Your task to perform on an android device: Search for sushi restaurants on Maps Image 0: 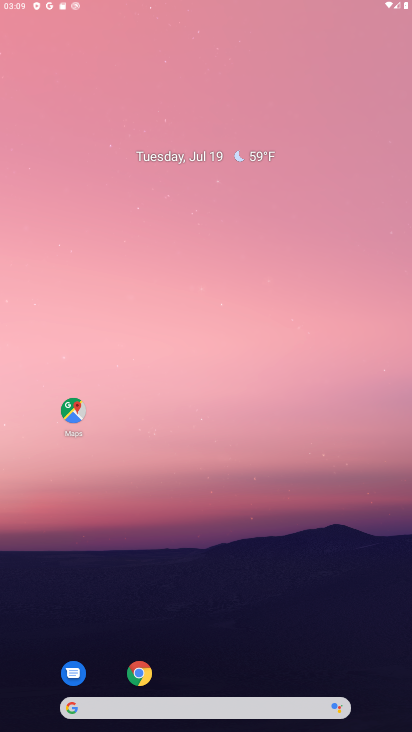
Step 0: drag from (207, 676) to (219, 25)
Your task to perform on an android device: Search for sushi restaurants on Maps Image 1: 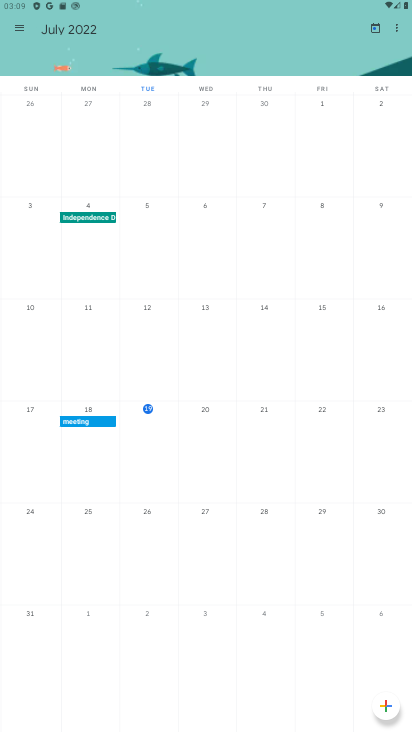
Step 1: press home button
Your task to perform on an android device: Search for sushi restaurants on Maps Image 2: 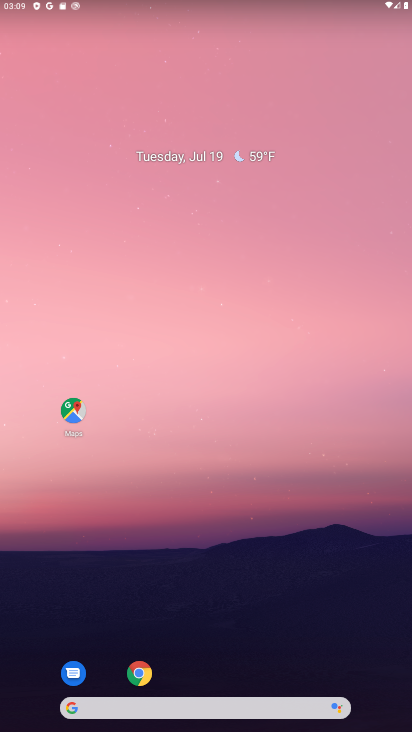
Step 2: click (72, 405)
Your task to perform on an android device: Search for sushi restaurants on Maps Image 3: 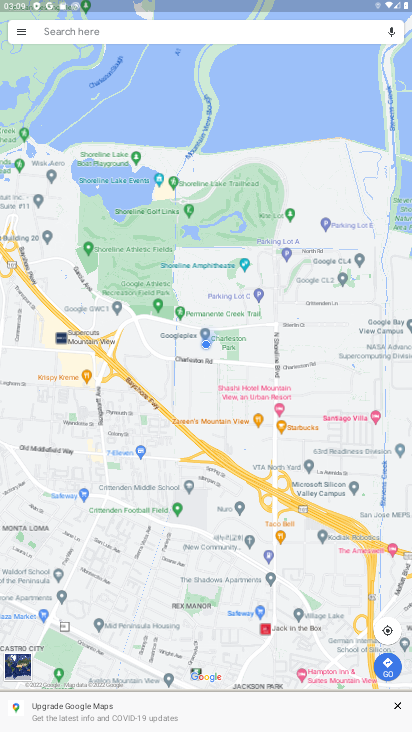
Step 3: click (83, 29)
Your task to perform on an android device: Search for sushi restaurants on Maps Image 4: 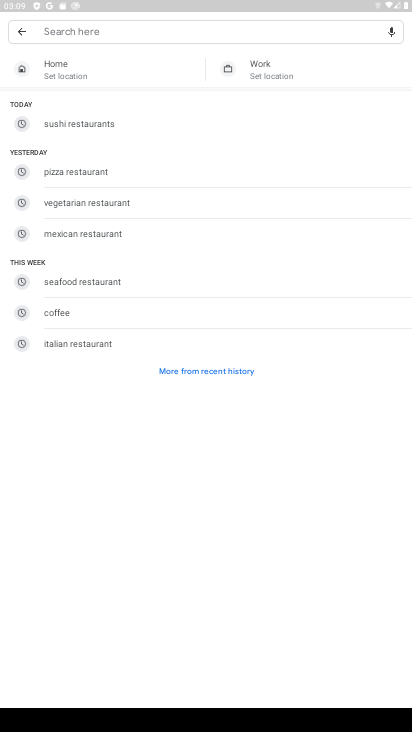
Step 4: click (82, 122)
Your task to perform on an android device: Search for sushi restaurants on Maps Image 5: 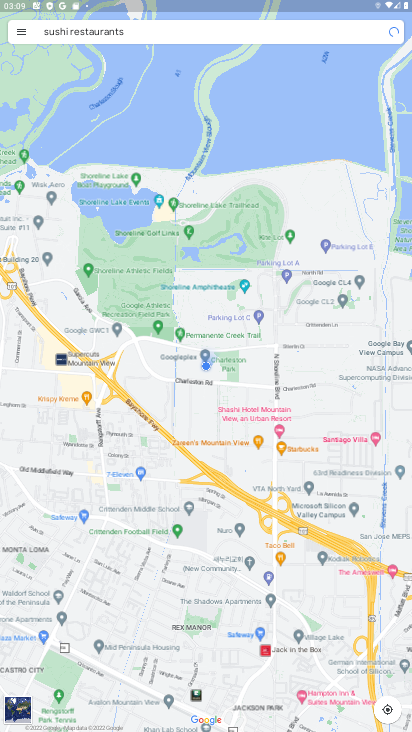
Step 5: click (153, 27)
Your task to perform on an android device: Search for sushi restaurants on Maps Image 6: 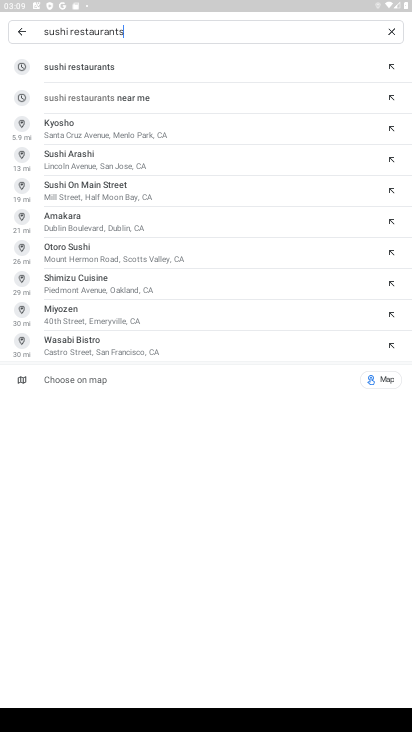
Step 6: drag from (189, 610) to (179, 200)
Your task to perform on an android device: Search for sushi restaurants on Maps Image 7: 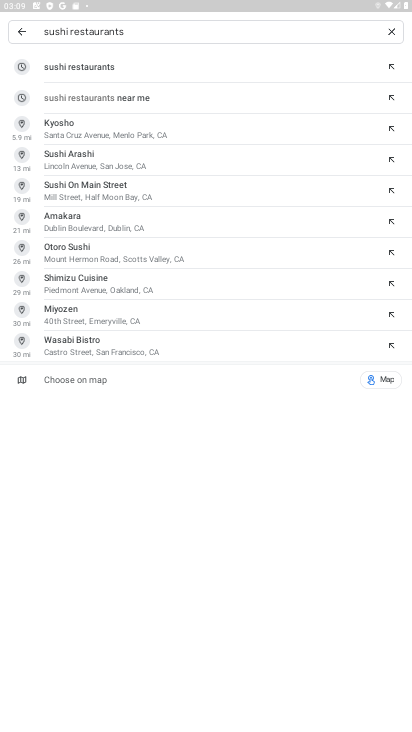
Step 7: click (109, 67)
Your task to perform on an android device: Search for sushi restaurants on Maps Image 8: 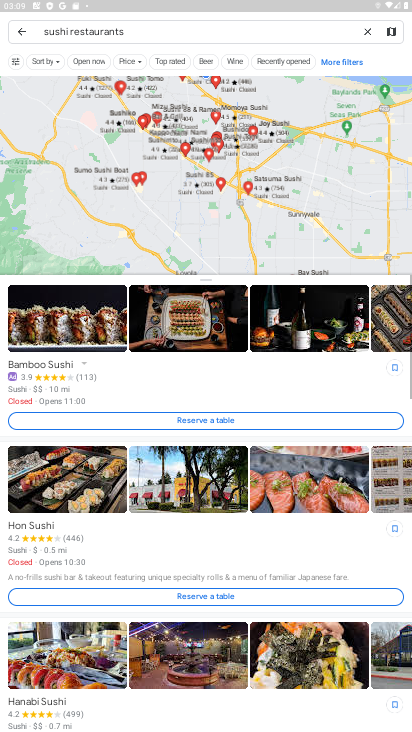
Step 8: task complete